Your task to perform on an android device: show emergency info Image 0: 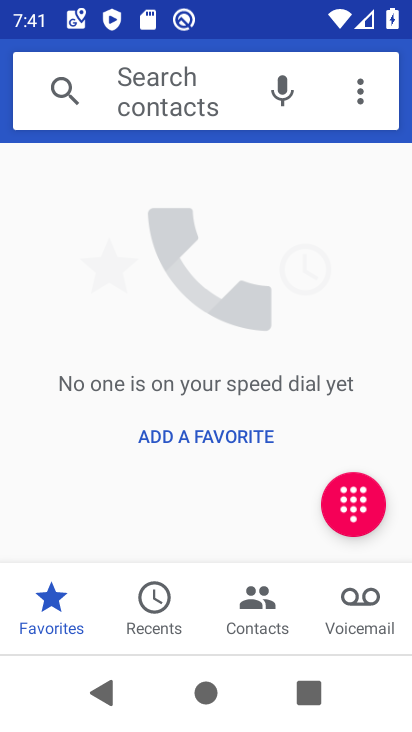
Step 0: press home button
Your task to perform on an android device: show emergency info Image 1: 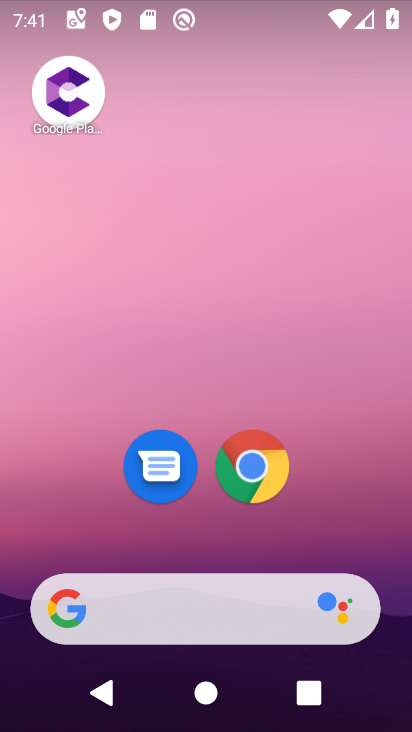
Step 1: drag from (366, 486) to (310, 14)
Your task to perform on an android device: show emergency info Image 2: 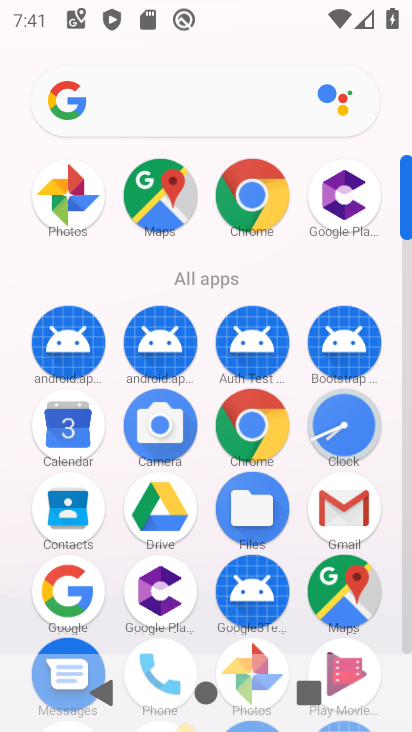
Step 2: drag from (198, 553) to (237, 237)
Your task to perform on an android device: show emergency info Image 3: 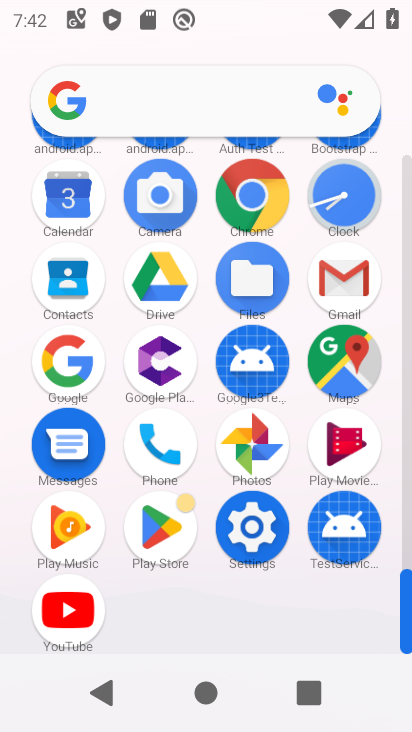
Step 3: click (260, 528)
Your task to perform on an android device: show emergency info Image 4: 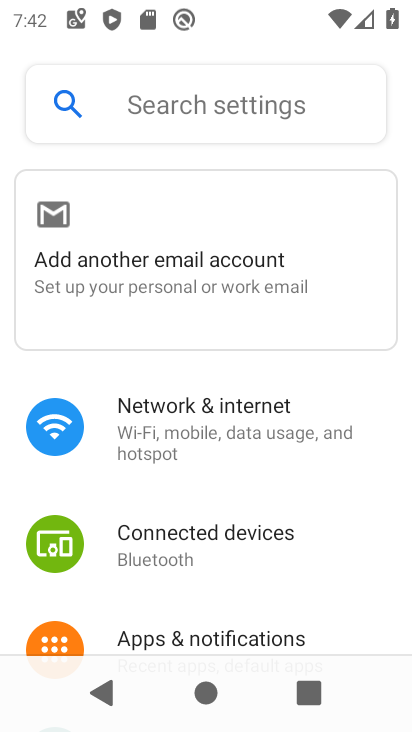
Step 4: drag from (328, 608) to (372, 216)
Your task to perform on an android device: show emergency info Image 5: 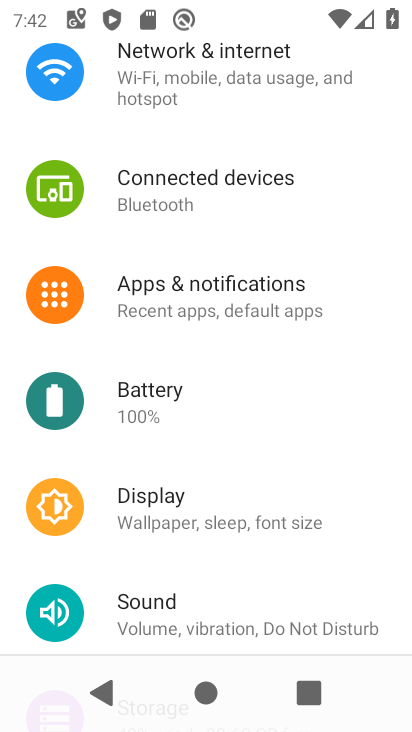
Step 5: drag from (358, 545) to (410, 286)
Your task to perform on an android device: show emergency info Image 6: 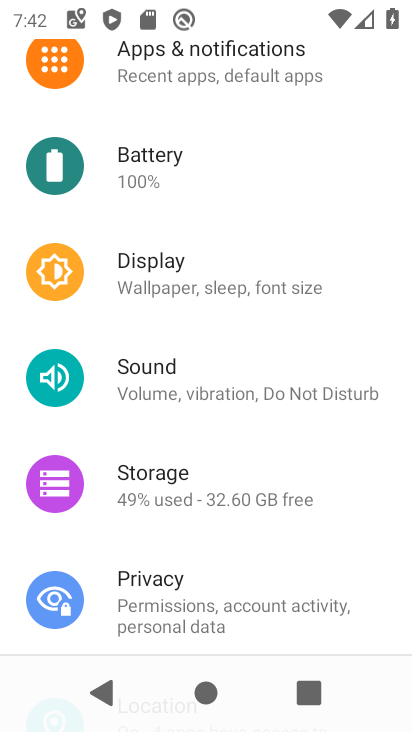
Step 6: drag from (303, 561) to (345, 234)
Your task to perform on an android device: show emergency info Image 7: 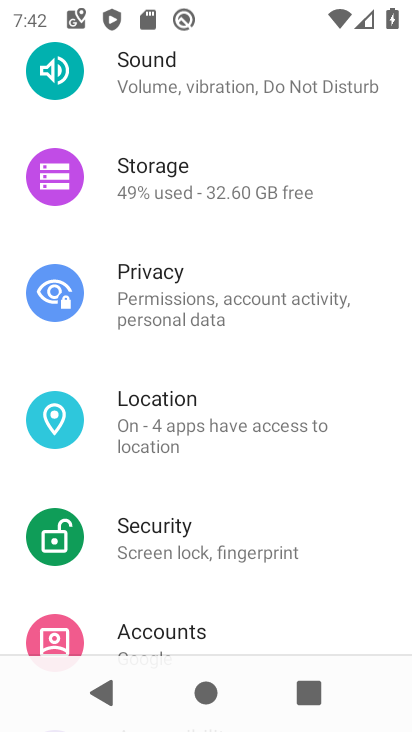
Step 7: drag from (348, 595) to (356, 209)
Your task to perform on an android device: show emergency info Image 8: 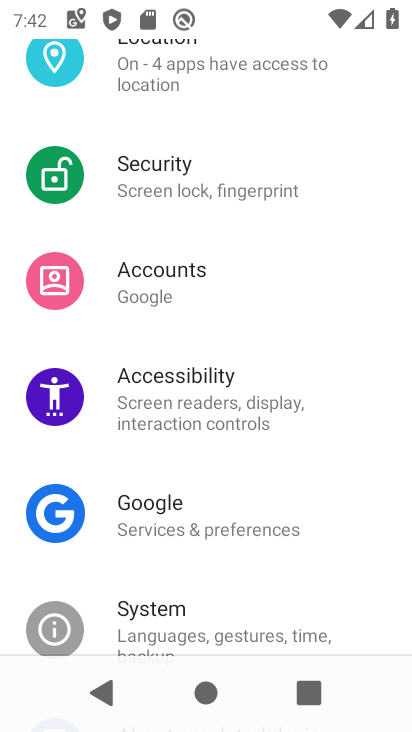
Step 8: drag from (224, 564) to (380, 255)
Your task to perform on an android device: show emergency info Image 9: 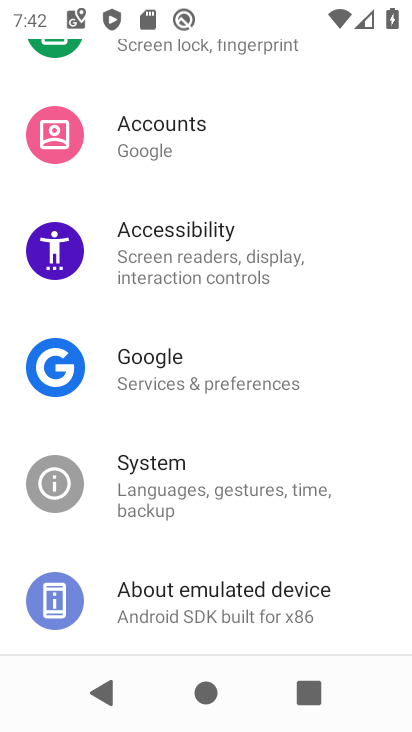
Step 9: click (234, 587)
Your task to perform on an android device: show emergency info Image 10: 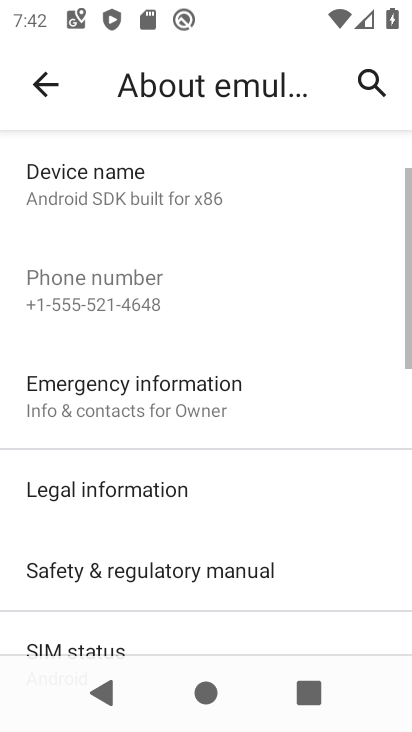
Step 10: click (228, 409)
Your task to perform on an android device: show emergency info Image 11: 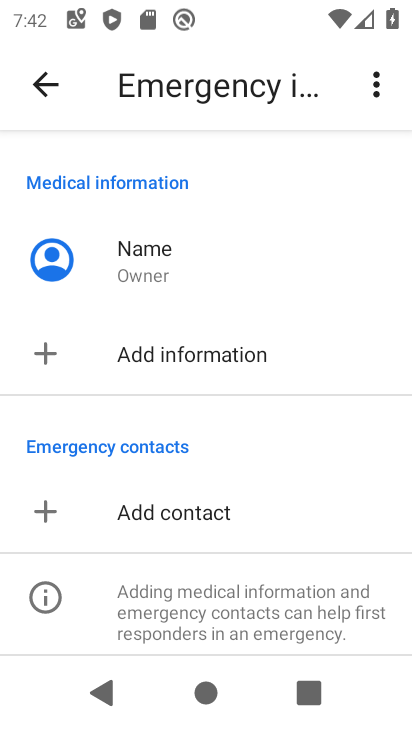
Step 11: task complete